Your task to perform on an android device: Open Chrome and go to the settings page Image 0: 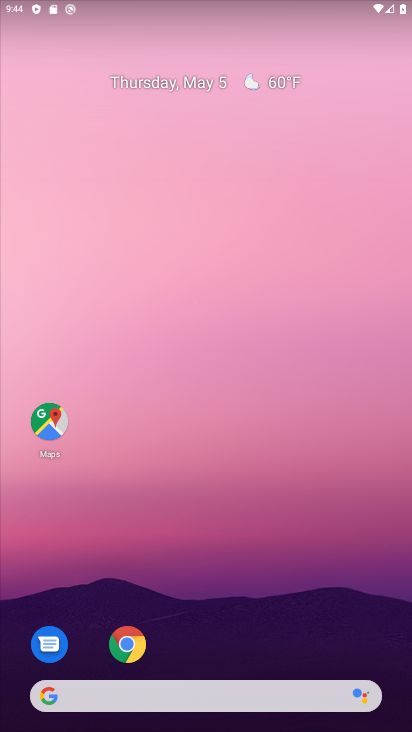
Step 0: drag from (373, 610) to (383, 38)
Your task to perform on an android device: Open Chrome and go to the settings page Image 1: 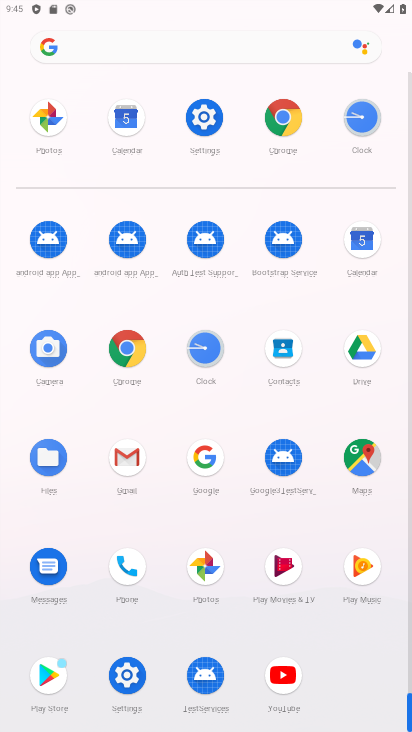
Step 1: click (301, 113)
Your task to perform on an android device: Open Chrome and go to the settings page Image 2: 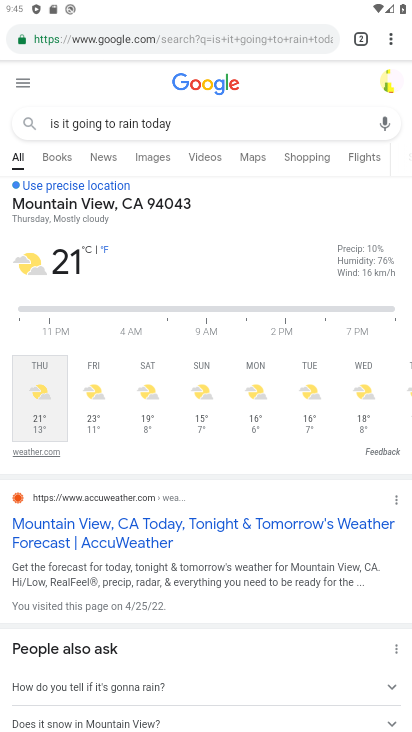
Step 2: drag from (388, 43) to (242, 428)
Your task to perform on an android device: Open Chrome and go to the settings page Image 3: 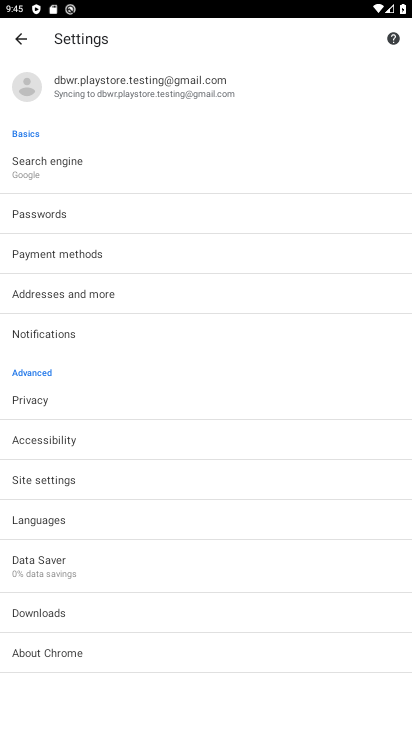
Step 3: click (64, 473)
Your task to perform on an android device: Open Chrome and go to the settings page Image 4: 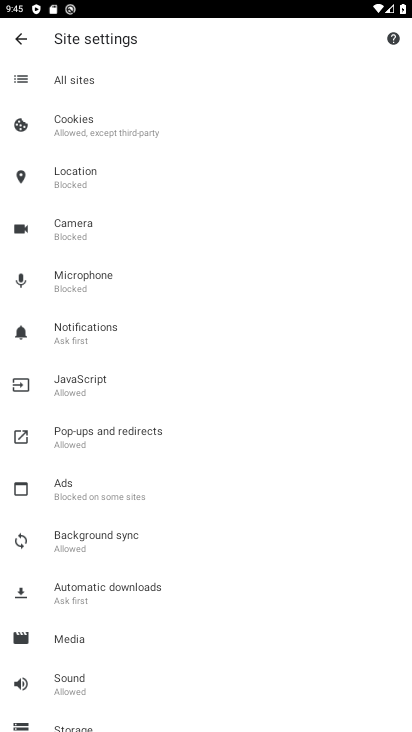
Step 4: task complete